Your task to perform on an android device: turn notification dots off Image 0: 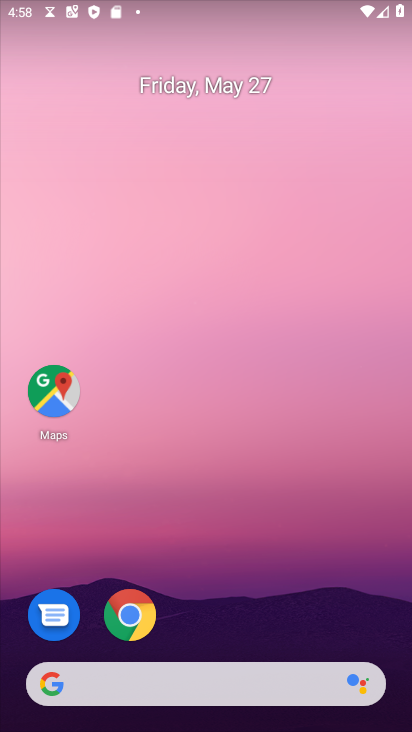
Step 0: drag from (308, 584) to (202, 57)
Your task to perform on an android device: turn notification dots off Image 1: 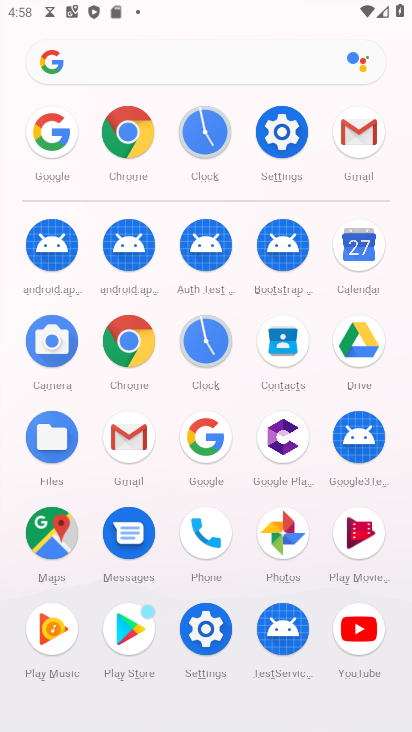
Step 1: click (274, 143)
Your task to perform on an android device: turn notification dots off Image 2: 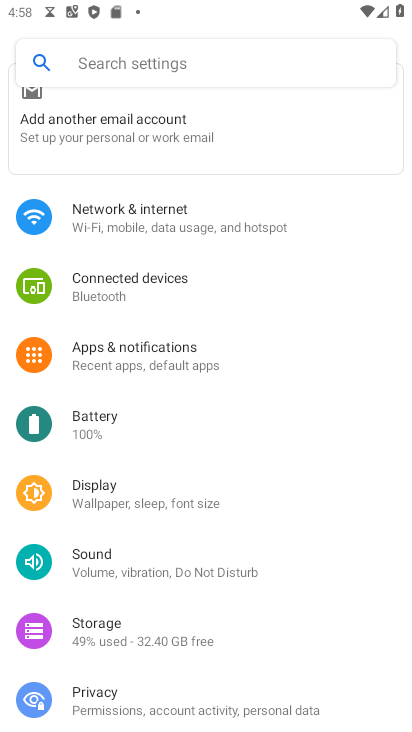
Step 2: click (139, 355)
Your task to perform on an android device: turn notification dots off Image 3: 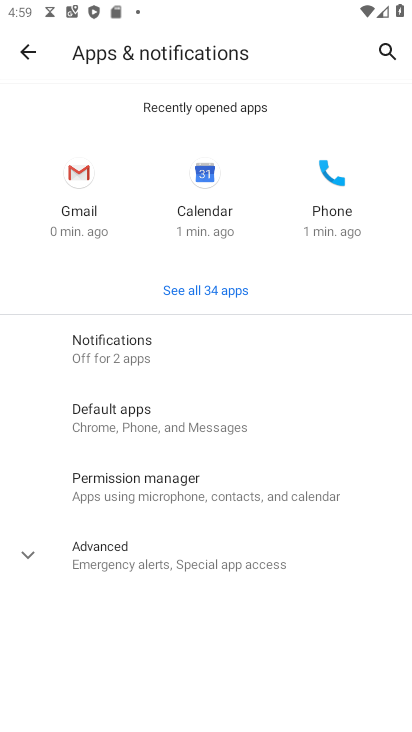
Step 3: click (187, 348)
Your task to perform on an android device: turn notification dots off Image 4: 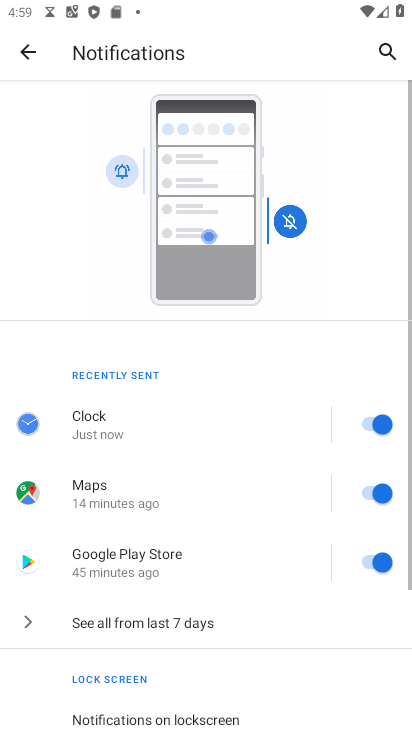
Step 4: drag from (254, 660) to (262, 108)
Your task to perform on an android device: turn notification dots off Image 5: 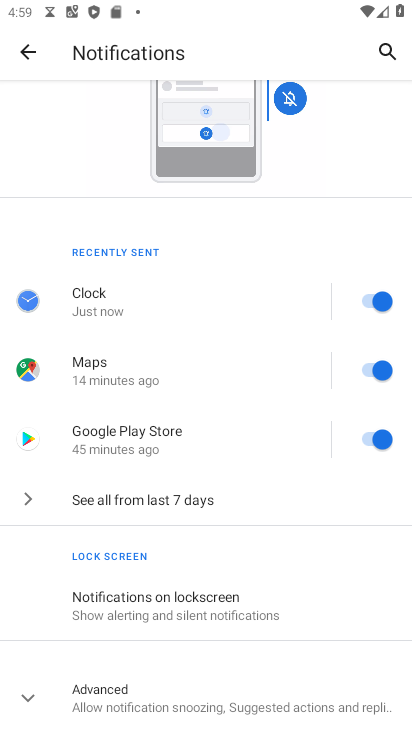
Step 5: click (251, 696)
Your task to perform on an android device: turn notification dots off Image 6: 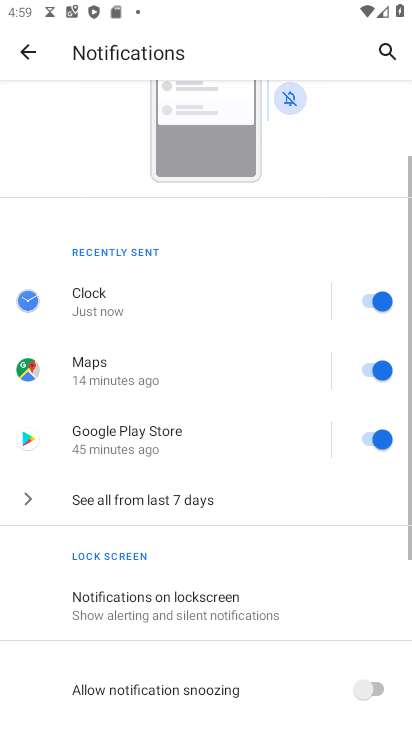
Step 6: drag from (246, 632) to (193, 86)
Your task to perform on an android device: turn notification dots off Image 7: 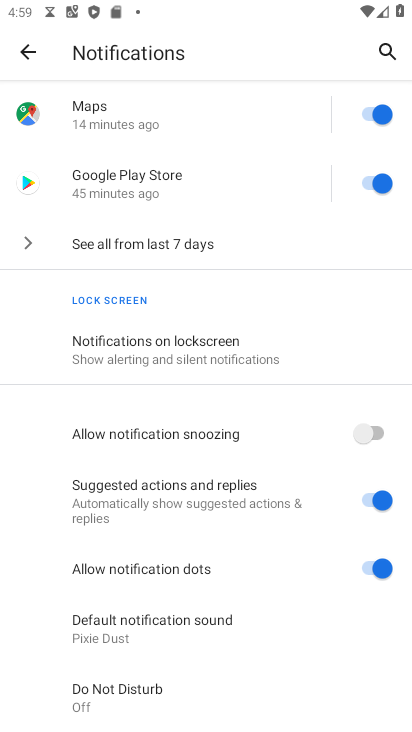
Step 7: click (379, 563)
Your task to perform on an android device: turn notification dots off Image 8: 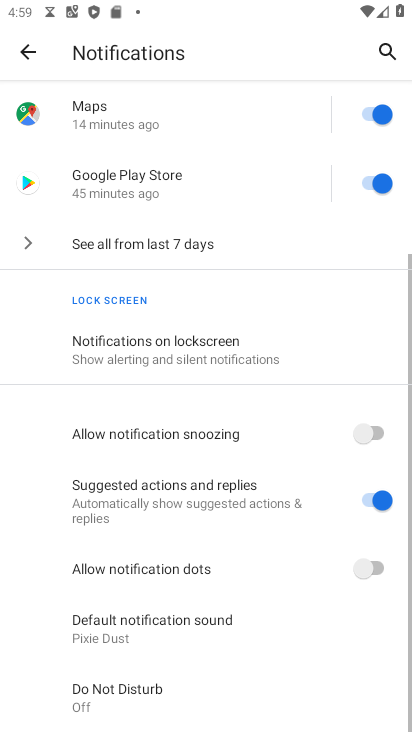
Step 8: task complete